Your task to perform on an android device: open wifi settings Image 0: 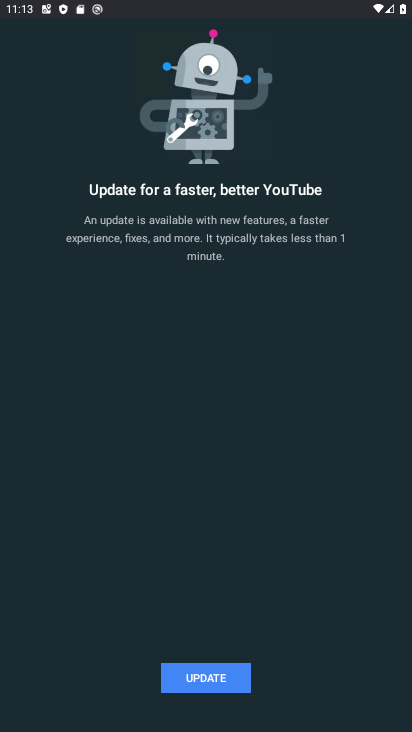
Step 0: press home button
Your task to perform on an android device: open wifi settings Image 1: 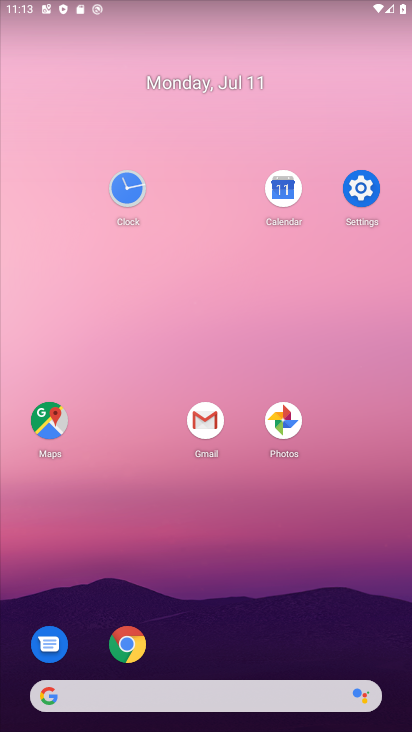
Step 1: click (374, 188)
Your task to perform on an android device: open wifi settings Image 2: 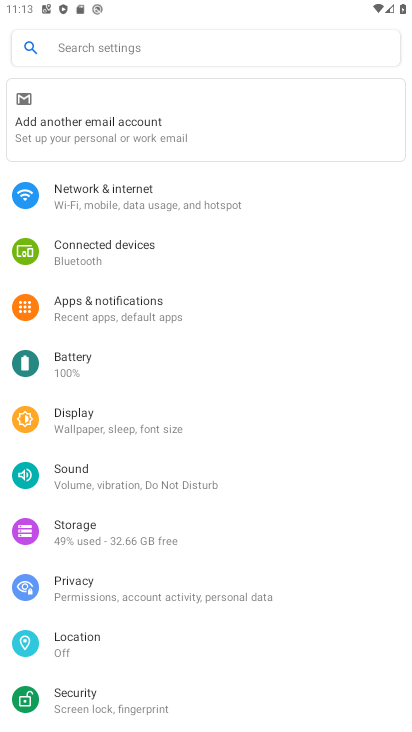
Step 2: click (123, 205)
Your task to perform on an android device: open wifi settings Image 3: 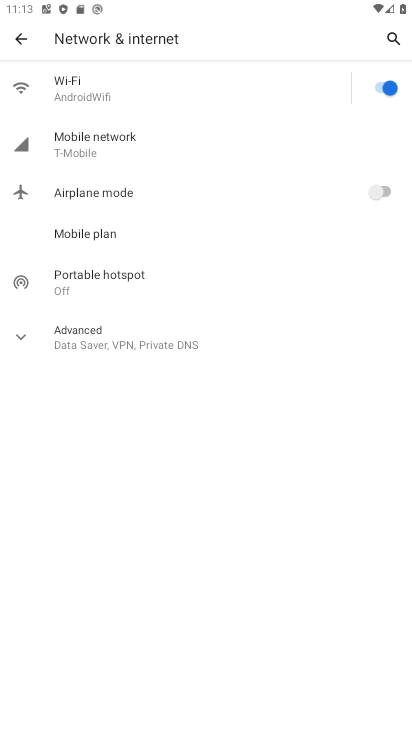
Step 3: click (175, 86)
Your task to perform on an android device: open wifi settings Image 4: 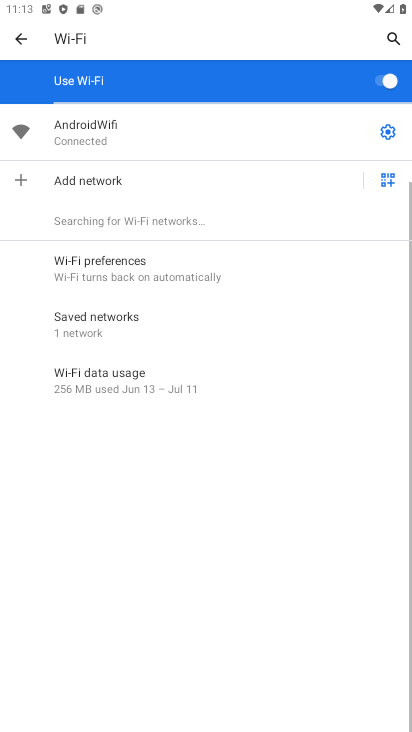
Step 4: click (395, 126)
Your task to perform on an android device: open wifi settings Image 5: 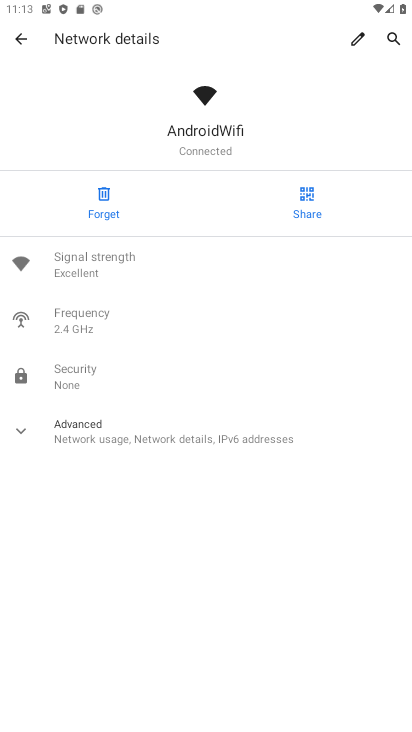
Step 5: task complete